Your task to perform on an android device: choose inbox layout in the gmail app Image 0: 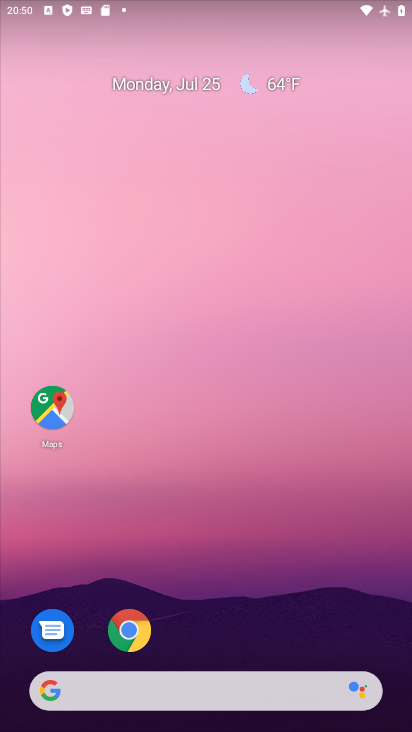
Step 0: drag from (401, 641) to (300, 118)
Your task to perform on an android device: choose inbox layout in the gmail app Image 1: 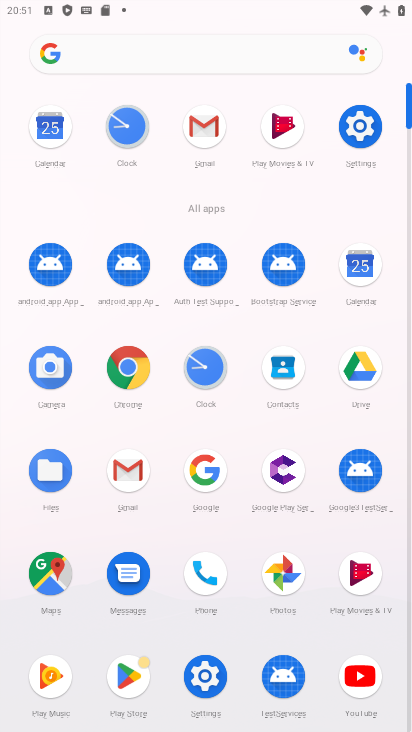
Step 1: click (129, 470)
Your task to perform on an android device: choose inbox layout in the gmail app Image 2: 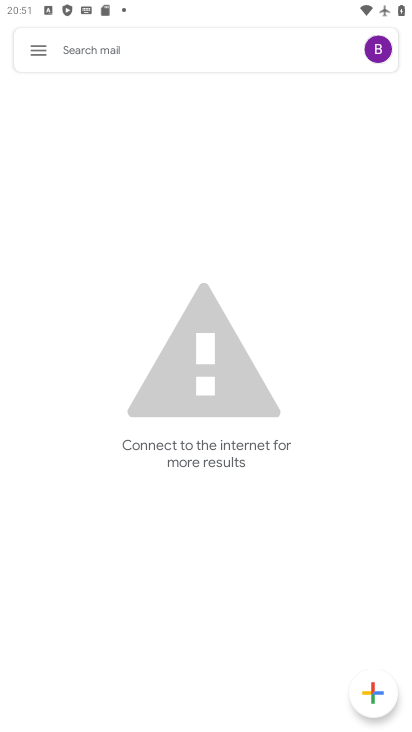
Step 2: click (35, 50)
Your task to perform on an android device: choose inbox layout in the gmail app Image 3: 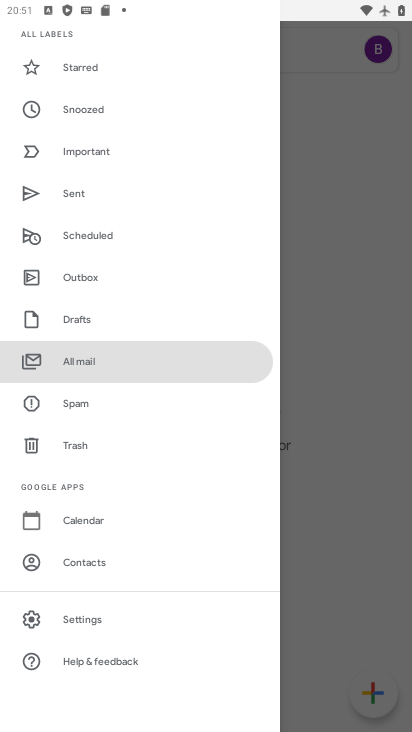
Step 3: click (77, 618)
Your task to perform on an android device: choose inbox layout in the gmail app Image 4: 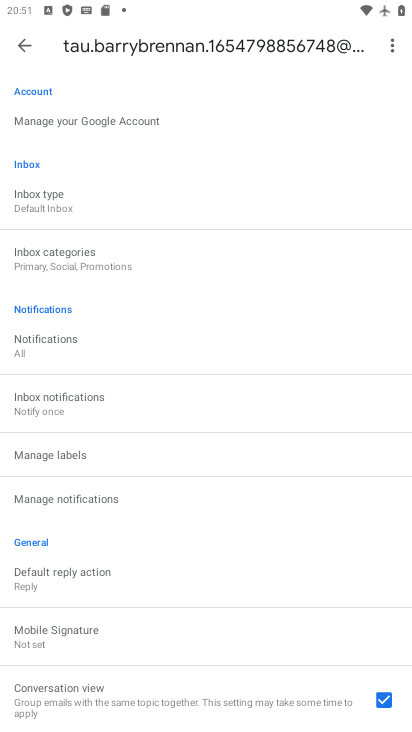
Step 4: click (49, 212)
Your task to perform on an android device: choose inbox layout in the gmail app Image 5: 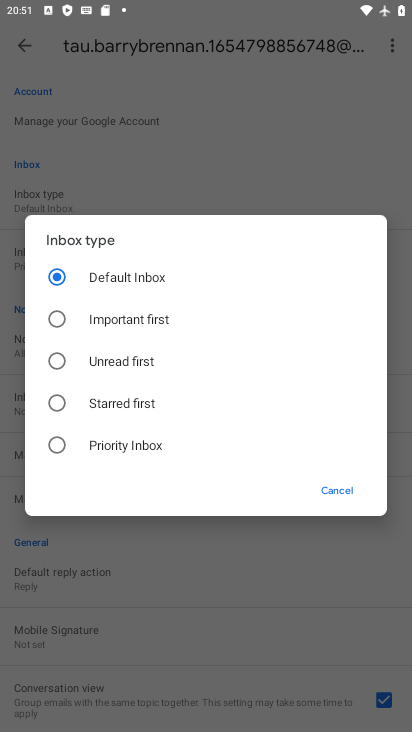
Step 5: click (56, 447)
Your task to perform on an android device: choose inbox layout in the gmail app Image 6: 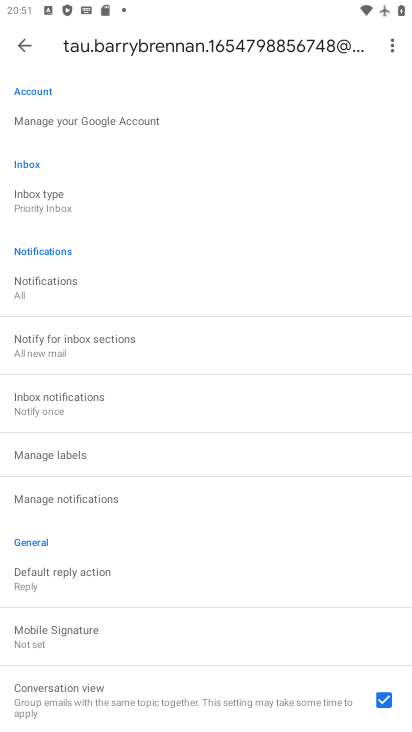
Step 6: task complete